Your task to perform on an android device: Open CNN.com Image 0: 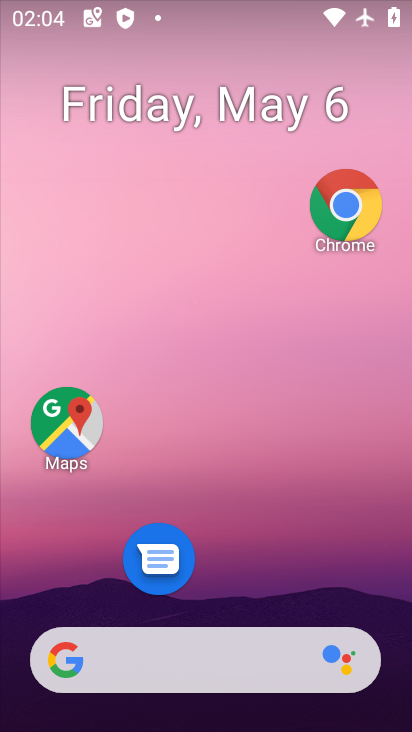
Step 0: drag from (178, 651) to (362, 44)
Your task to perform on an android device: Open CNN.com Image 1: 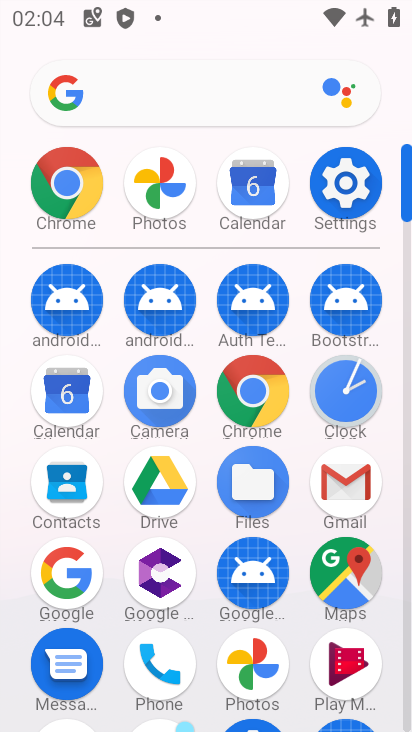
Step 1: click (81, 186)
Your task to perform on an android device: Open CNN.com Image 2: 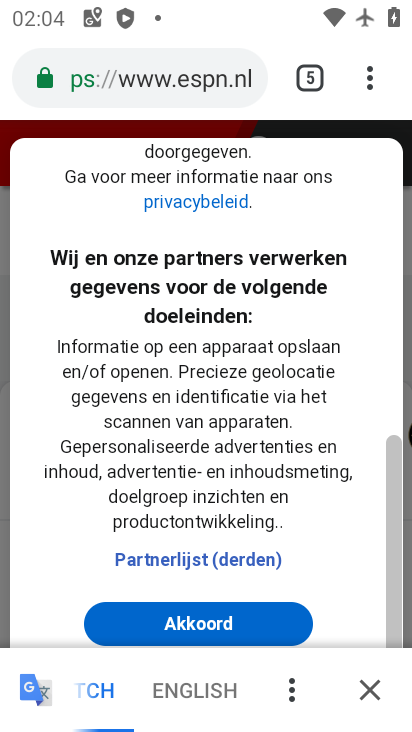
Step 2: drag from (373, 83) to (189, 153)
Your task to perform on an android device: Open CNN.com Image 3: 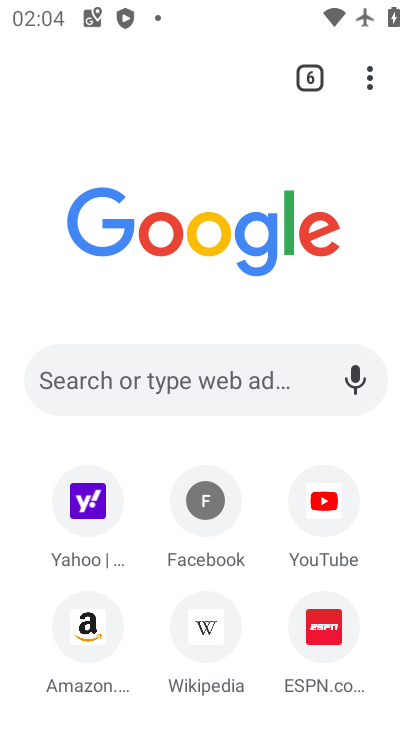
Step 3: click (174, 368)
Your task to perform on an android device: Open CNN.com Image 4: 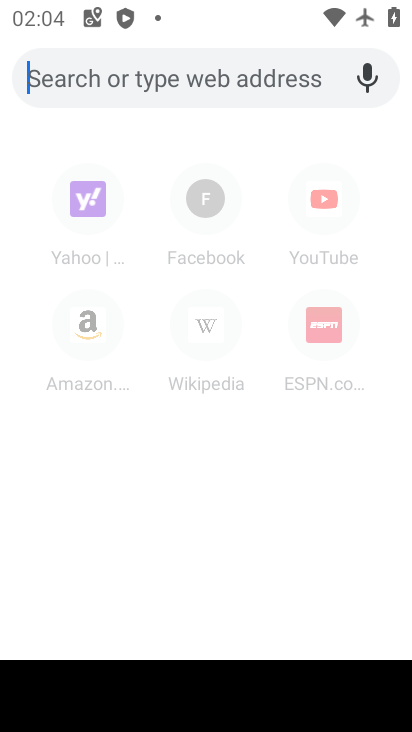
Step 4: type "cnn.com"
Your task to perform on an android device: Open CNN.com Image 5: 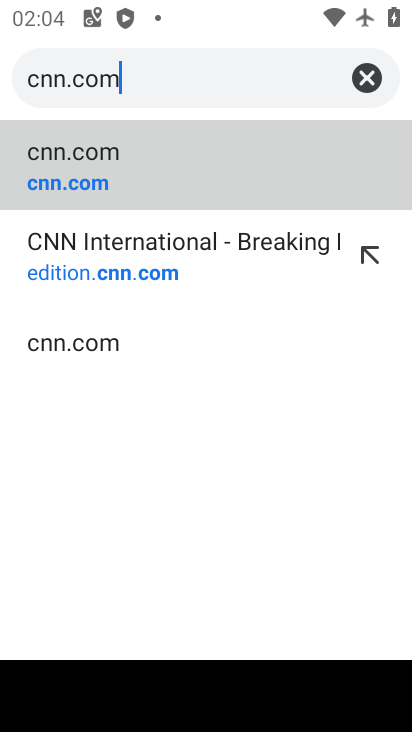
Step 5: click (177, 180)
Your task to perform on an android device: Open CNN.com Image 6: 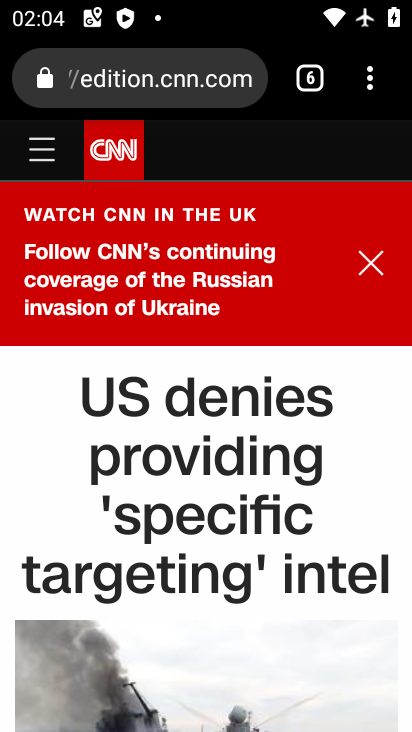
Step 6: task complete